Your task to perform on an android device: Set the phone to "Do not disturb". Image 0: 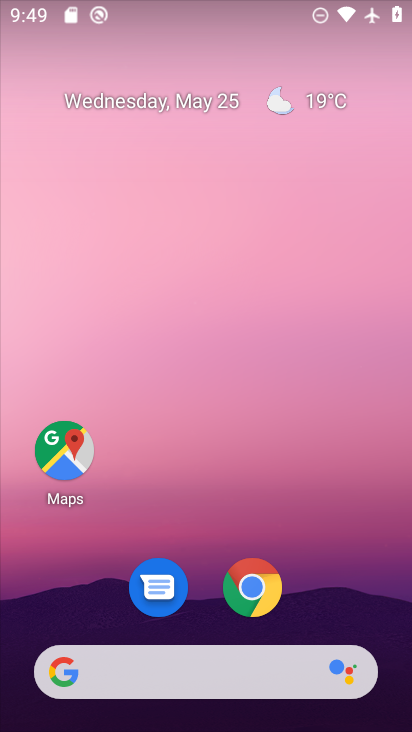
Step 0: drag from (390, 658) to (285, 54)
Your task to perform on an android device: Set the phone to "Do not disturb". Image 1: 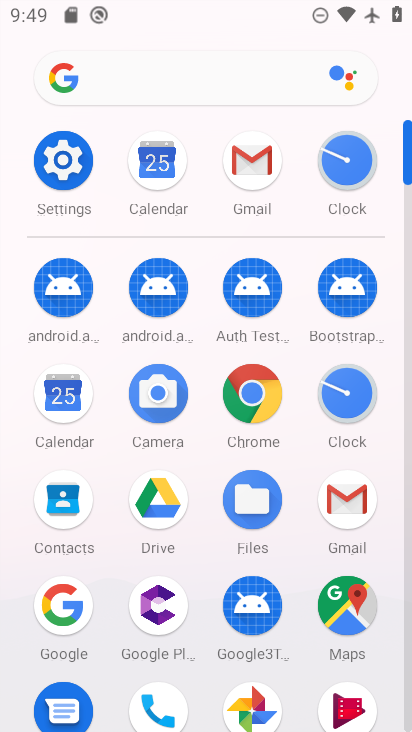
Step 1: click (411, 689)
Your task to perform on an android device: Set the phone to "Do not disturb". Image 2: 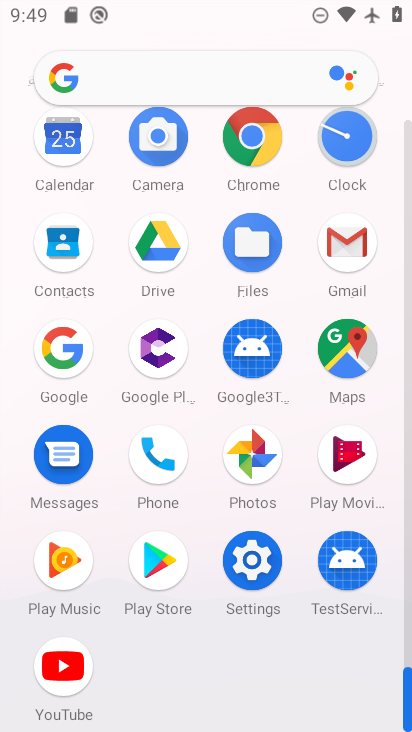
Step 2: click (253, 559)
Your task to perform on an android device: Set the phone to "Do not disturb". Image 3: 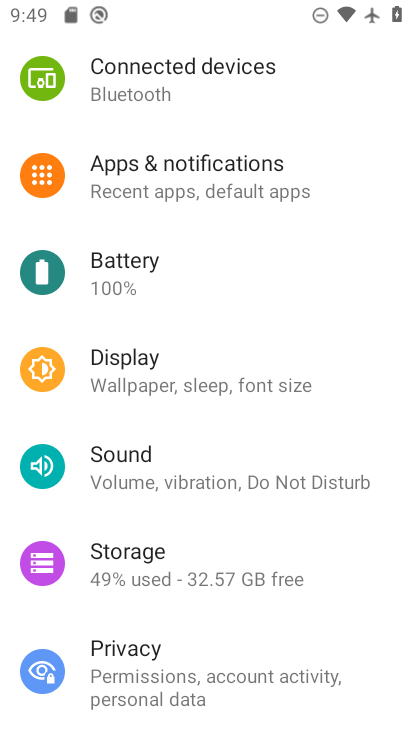
Step 3: click (143, 453)
Your task to perform on an android device: Set the phone to "Do not disturb". Image 4: 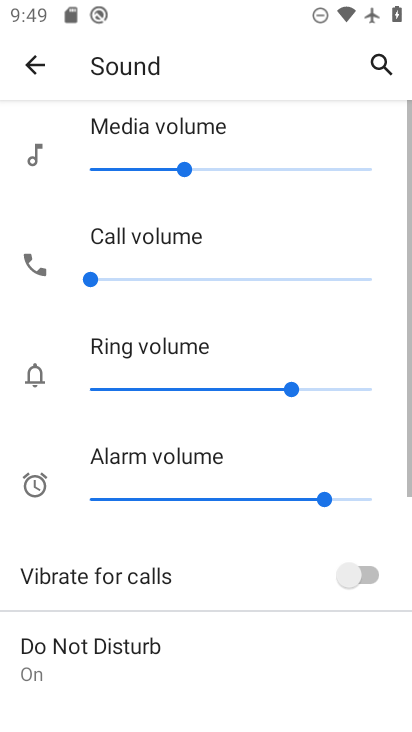
Step 4: drag from (311, 609) to (293, 207)
Your task to perform on an android device: Set the phone to "Do not disturb". Image 5: 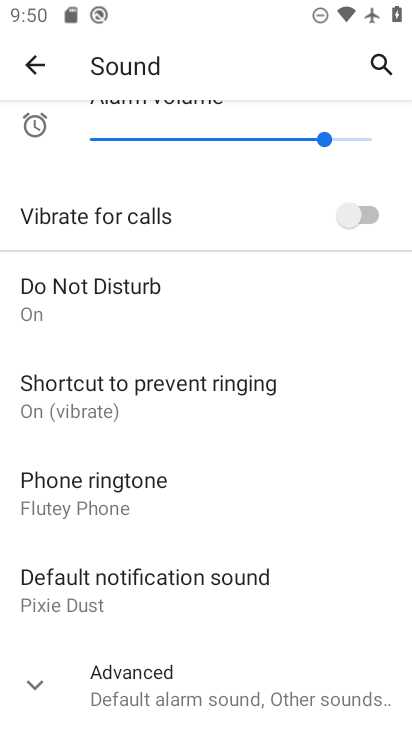
Step 5: click (70, 281)
Your task to perform on an android device: Set the phone to "Do not disturb". Image 6: 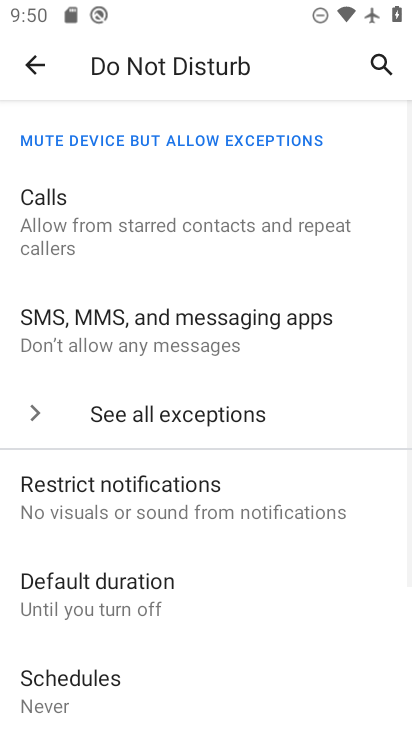
Step 6: task complete